Your task to perform on an android device: Go to ESPN.com Image 0: 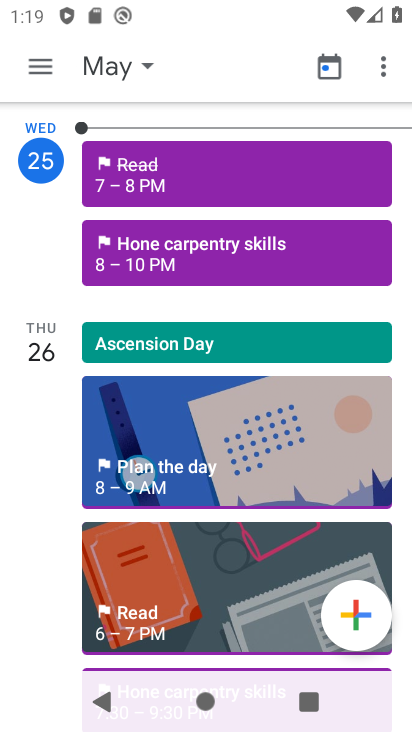
Step 0: press home button
Your task to perform on an android device: Go to ESPN.com Image 1: 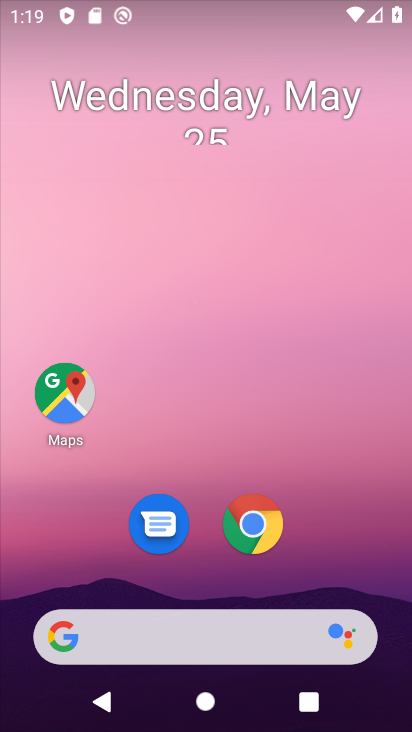
Step 1: click (261, 635)
Your task to perform on an android device: Go to ESPN.com Image 2: 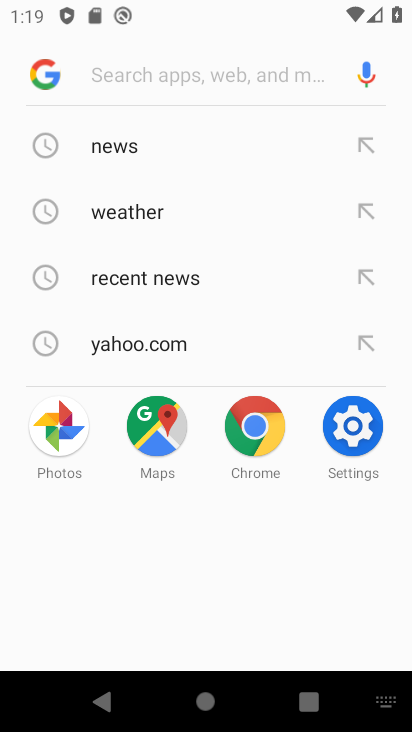
Step 2: type "espn.com"
Your task to perform on an android device: Go to ESPN.com Image 3: 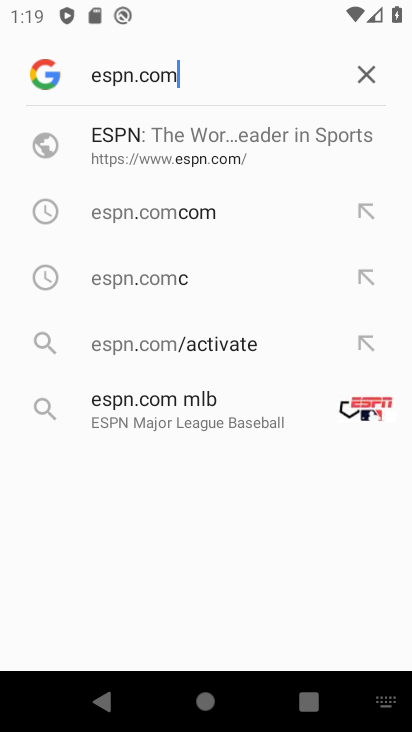
Step 3: click (147, 143)
Your task to perform on an android device: Go to ESPN.com Image 4: 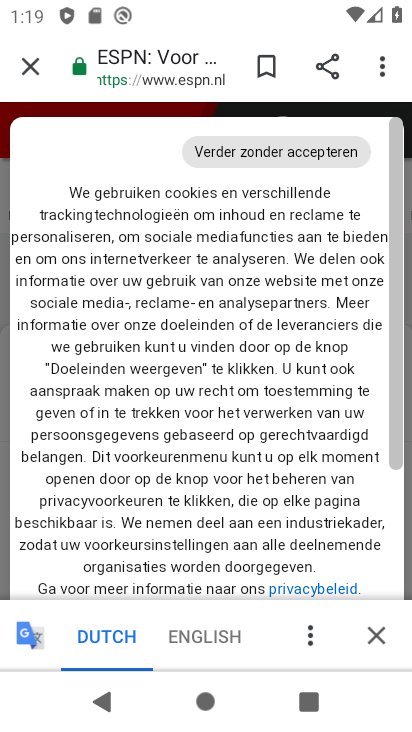
Step 4: task complete